Your task to perform on an android device: Open Youtube and go to "Your channel" Image 0: 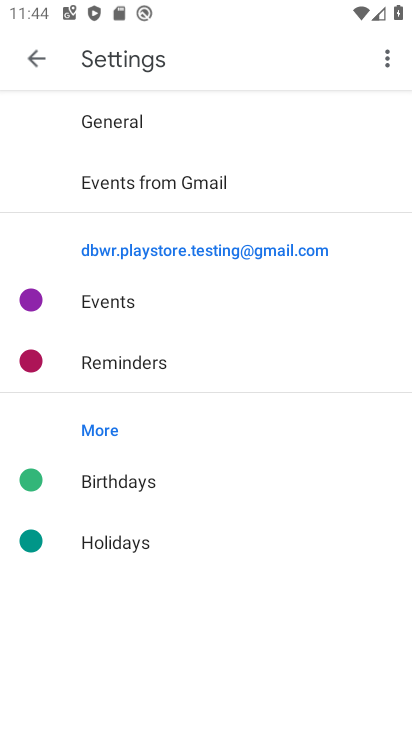
Step 0: press home button
Your task to perform on an android device: Open Youtube and go to "Your channel" Image 1: 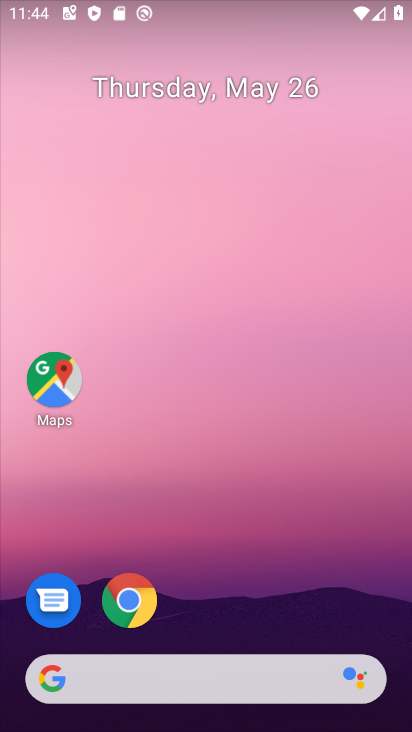
Step 1: drag from (167, 624) to (250, 98)
Your task to perform on an android device: Open Youtube and go to "Your channel" Image 2: 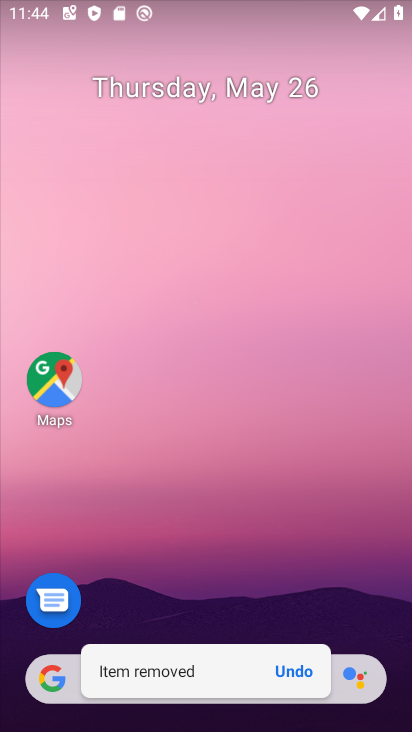
Step 2: click (291, 681)
Your task to perform on an android device: Open Youtube and go to "Your channel" Image 3: 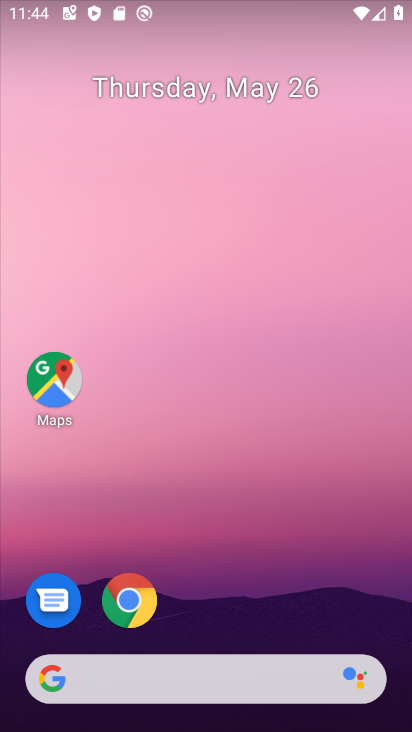
Step 3: drag from (243, 631) to (265, 153)
Your task to perform on an android device: Open Youtube and go to "Your channel" Image 4: 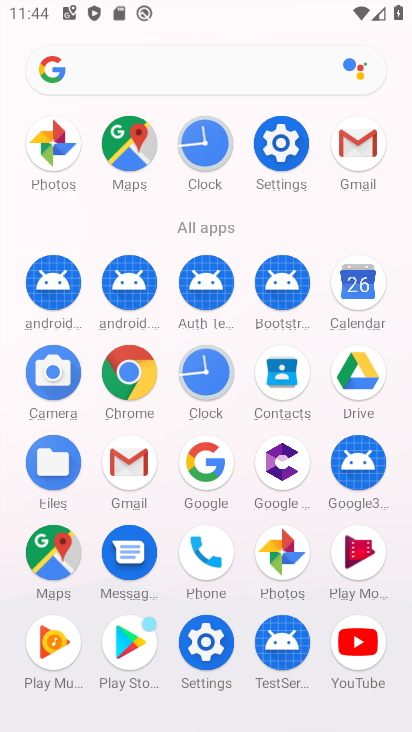
Step 4: click (344, 649)
Your task to perform on an android device: Open Youtube and go to "Your channel" Image 5: 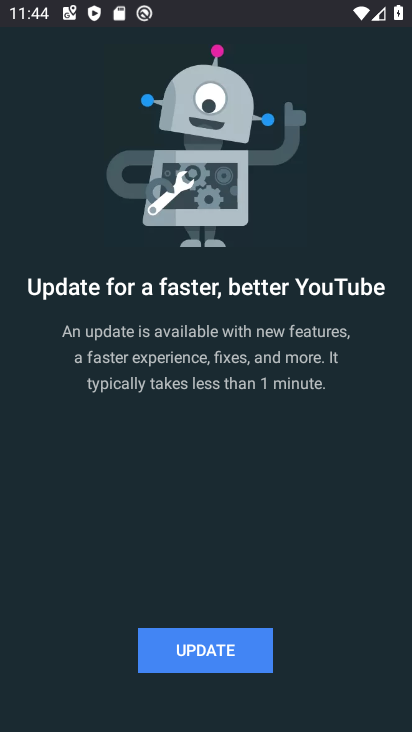
Step 5: click (242, 647)
Your task to perform on an android device: Open Youtube and go to "Your channel" Image 6: 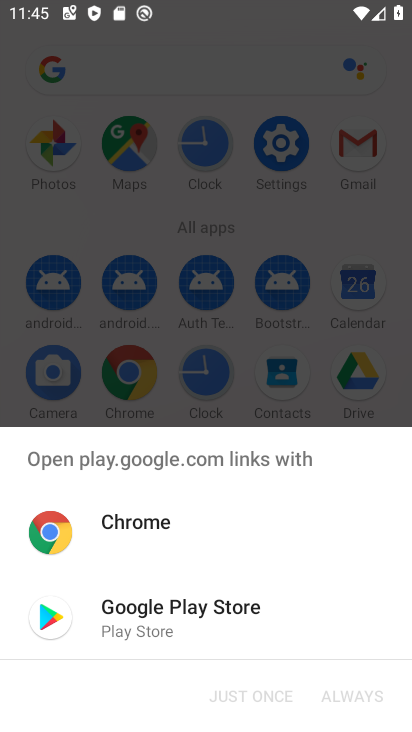
Step 6: click (210, 627)
Your task to perform on an android device: Open Youtube and go to "Your channel" Image 7: 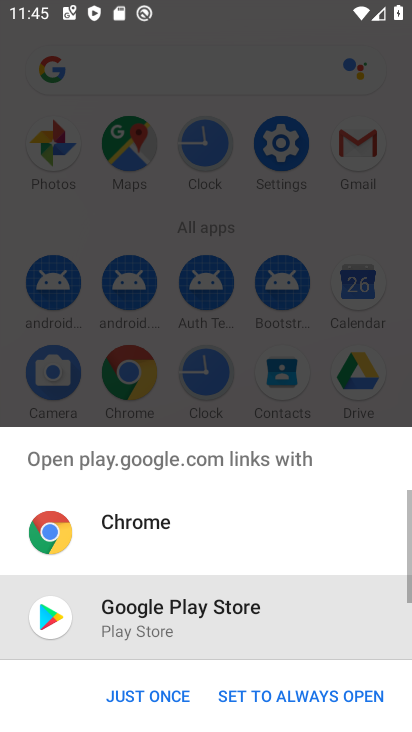
Step 7: click (261, 700)
Your task to perform on an android device: Open Youtube and go to "Your channel" Image 8: 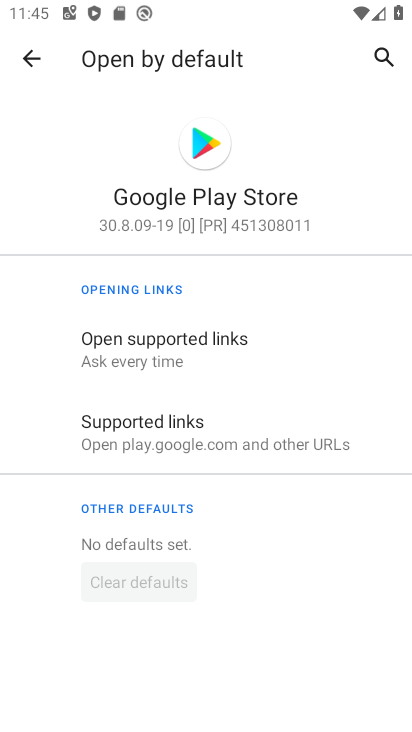
Step 8: press home button
Your task to perform on an android device: Open Youtube and go to "Your channel" Image 9: 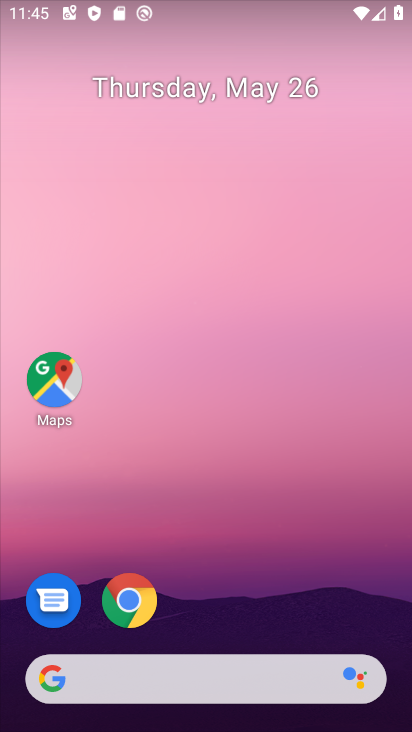
Step 9: drag from (191, 640) to (237, 80)
Your task to perform on an android device: Open Youtube and go to "Your channel" Image 10: 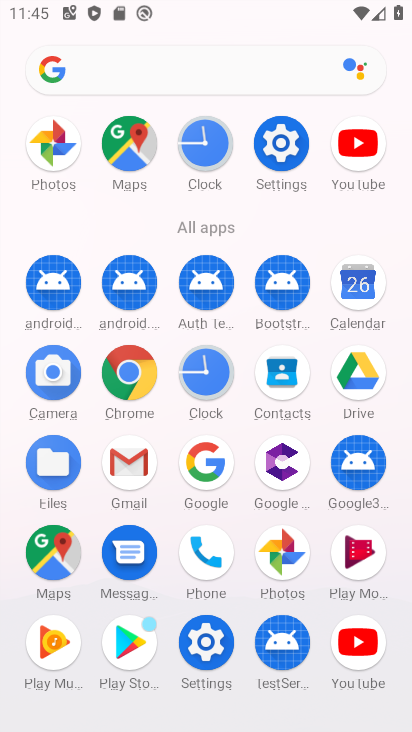
Step 10: click (369, 653)
Your task to perform on an android device: Open Youtube and go to "Your channel" Image 11: 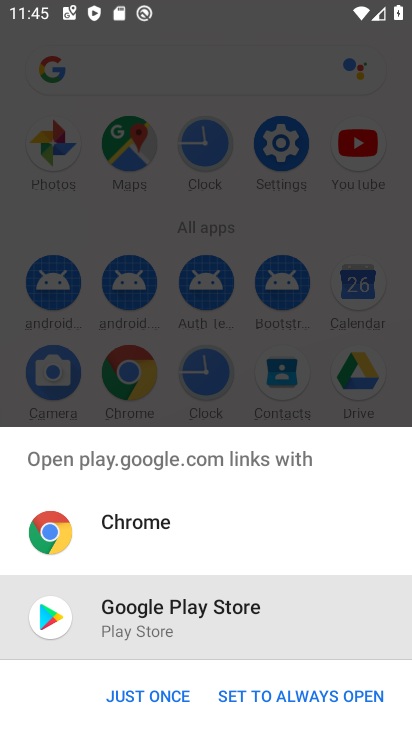
Step 11: click (150, 704)
Your task to perform on an android device: Open Youtube and go to "Your channel" Image 12: 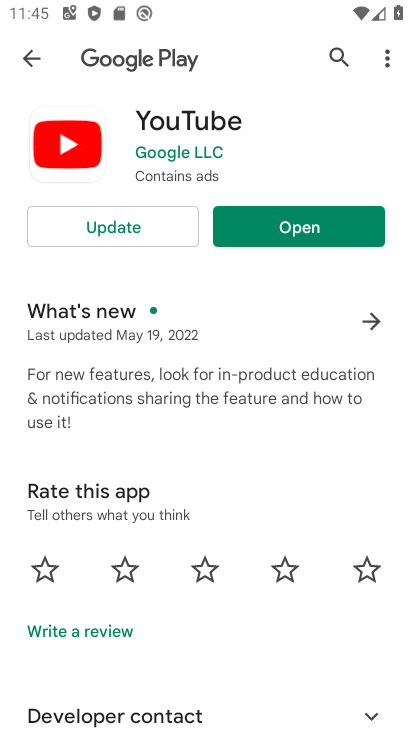
Step 12: click (263, 236)
Your task to perform on an android device: Open Youtube and go to "Your channel" Image 13: 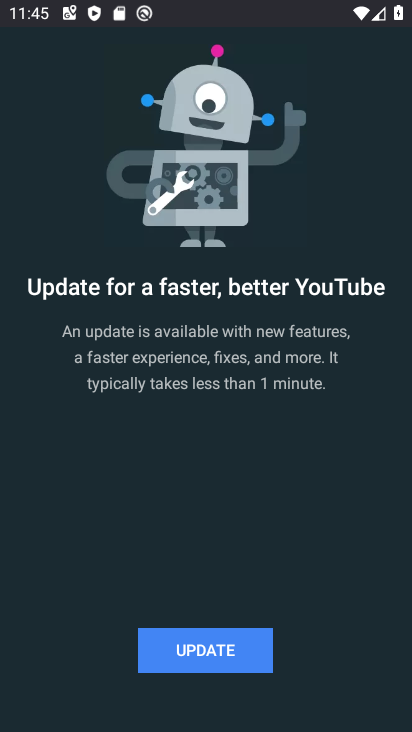
Step 13: click (247, 653)
Your task to perform on an android device: Open Youtube and go to "Your channel" Image 14: 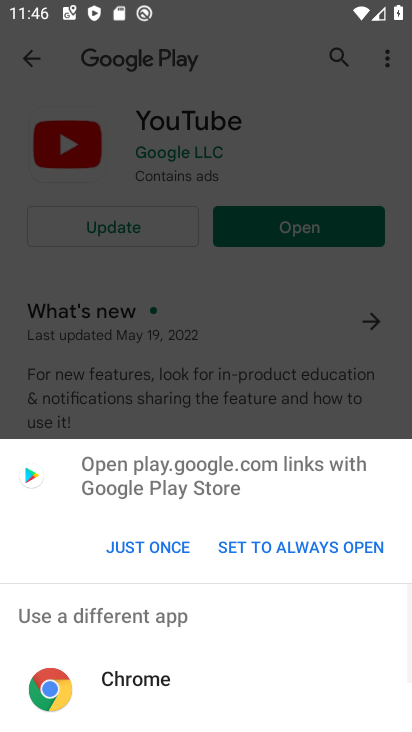
Step 14: click (150, 555)
Your task to perform on an android device: Open Youtube and go to "Your channel" Image 15: 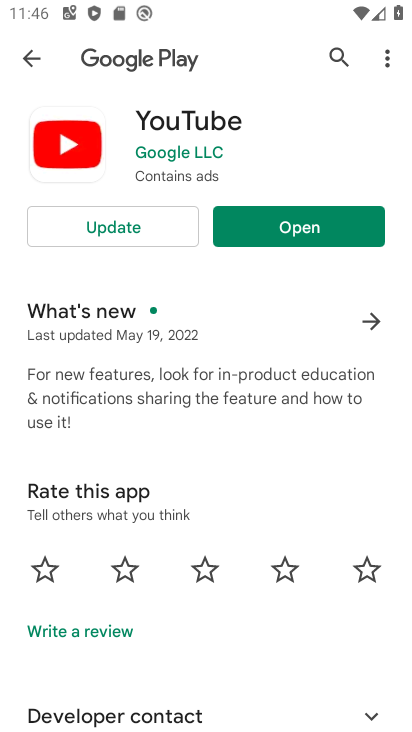
Step 15: click (113, 224)
Your task to perform on an android device: Open Youtube and go to "Your channel" Image 16: 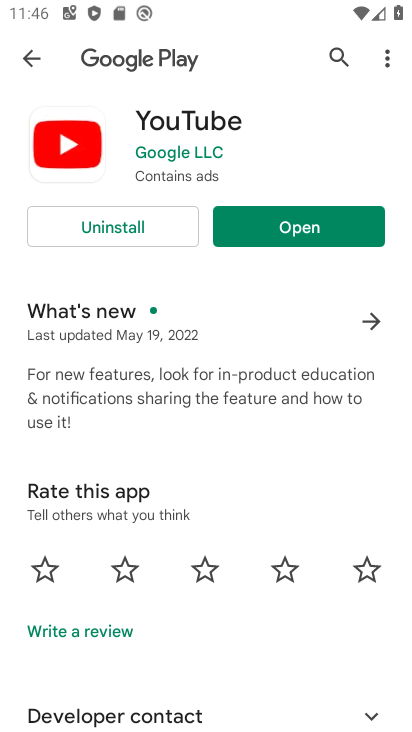
Step 16: click (292, 221)
Your task to perform on an android device: Open Youtube and go to "Your channel" Image 17: 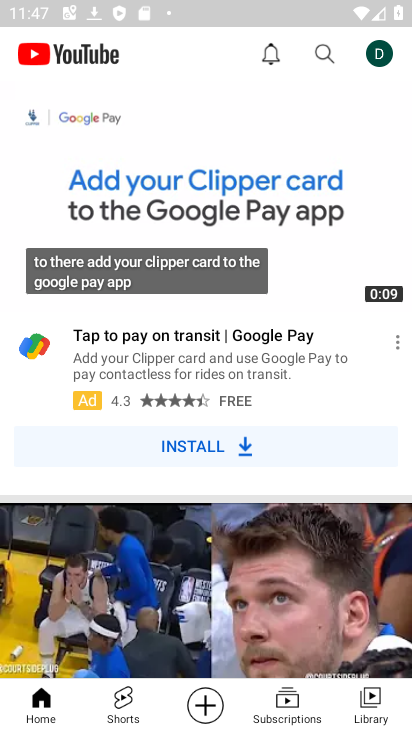
Step 17: click (317, 53)
Your task to perform on an android device: Open Youtube and go to "Your channel" Image 18: 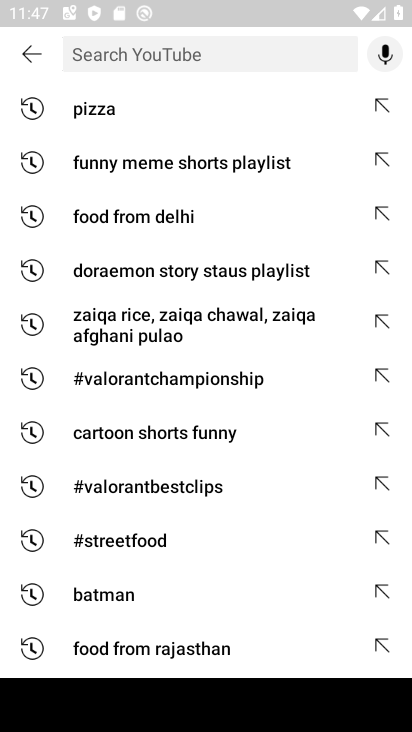
Step 18: type "your channel"
Your task to perform on an android device: Open Youtube and go to "Your channel" Image 19: 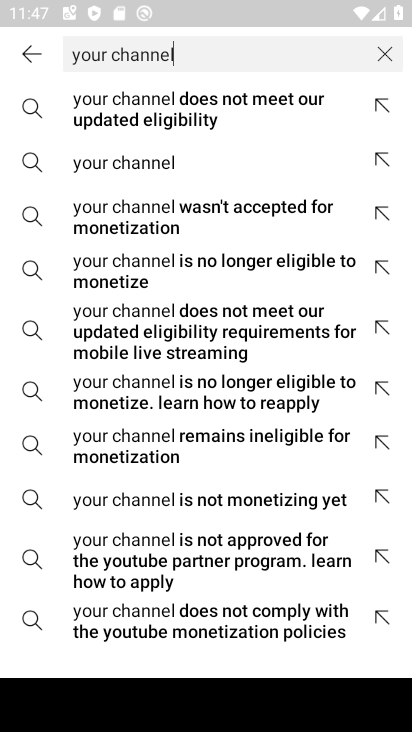
Step 19: click (139, 169)
Your task to perform on an android device: Open Youtube and go to "Your channel" Image 20: 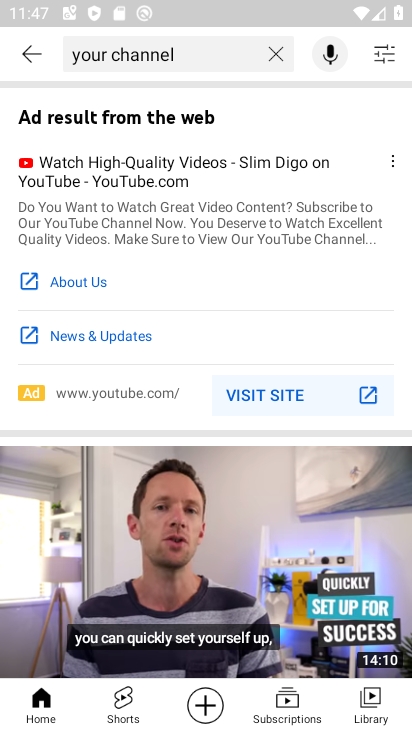
Step 20: task complete